Your task to perform on an android device: check google app version Image 0: 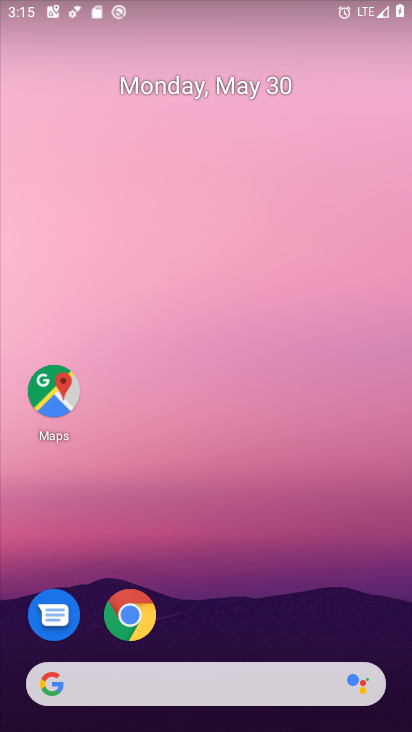
Step 0: click (245, 688)
Your task to perform on an android device: check google app version Image 1: 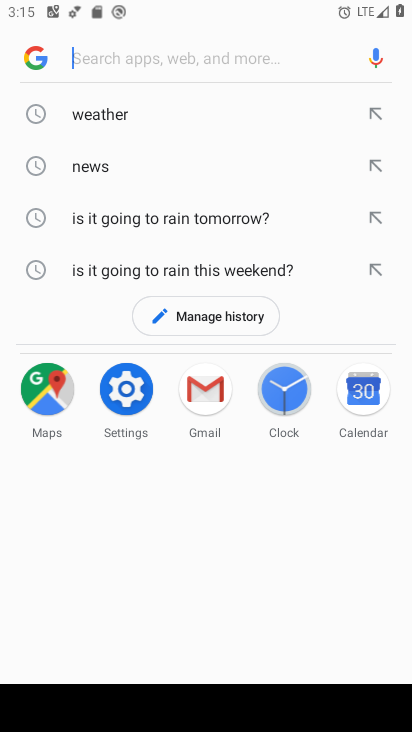
Step 1: click (32, 53)
Your task to perform on an android device: check google app version Image 2: 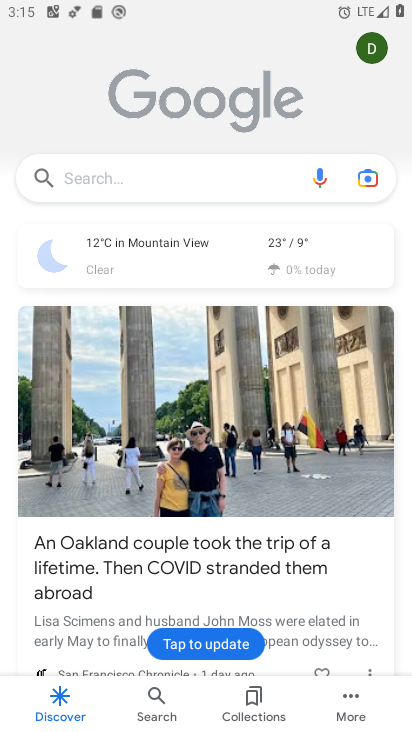
Step 2: click (347, 693)
Your task to perform on an android device: check google app version Image 3: 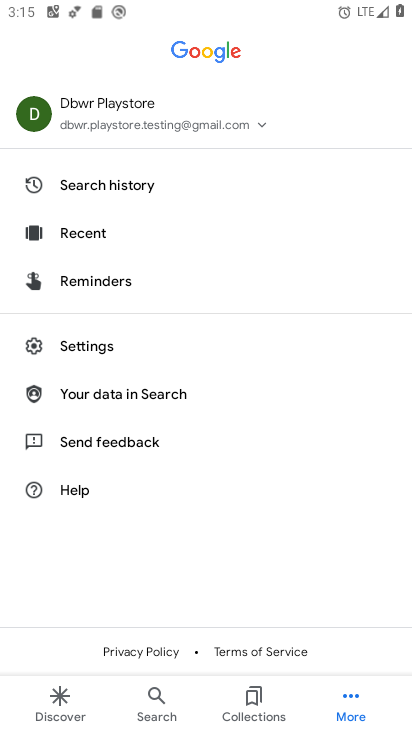
Step 3: click (106, 342)
Your task to perform on an android device: check google app version Image 4: 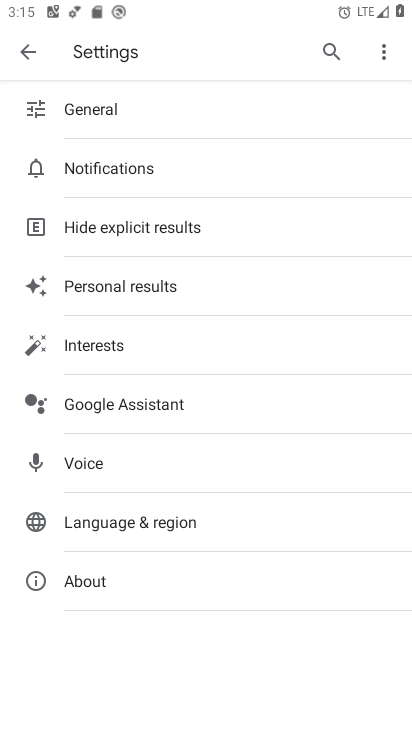
Step 4: click (195, 571)
Your task to perform on an android device: check google app version Image 5: 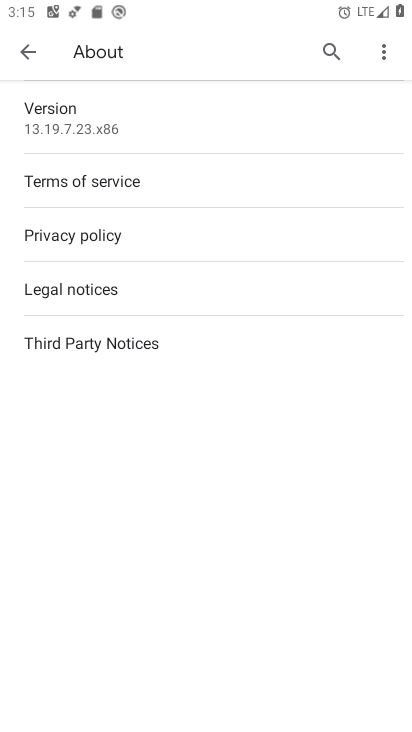
Step 5: task complete